Your task to perform on an android device: open app "Microsoft Outlook" (install if not already installed) Image 0: 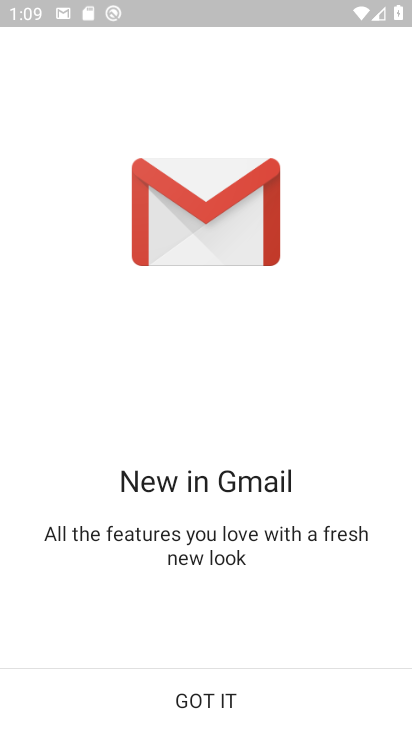
Step 0: press home button
Your task to perform on an android device: open app "Microsoft Outlook" (install if not already installed) Image 1: 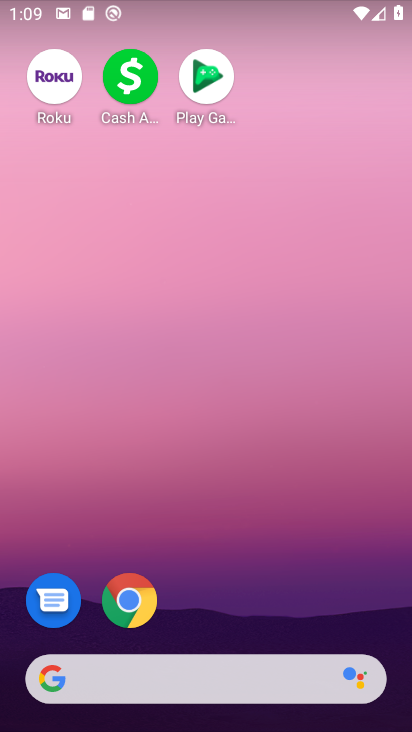
Step 1: drag from (262, 619) to (221, 192)
Your task to perform on an android device: open app "Microsoft Outlook" (install if not already installed) Image 2: 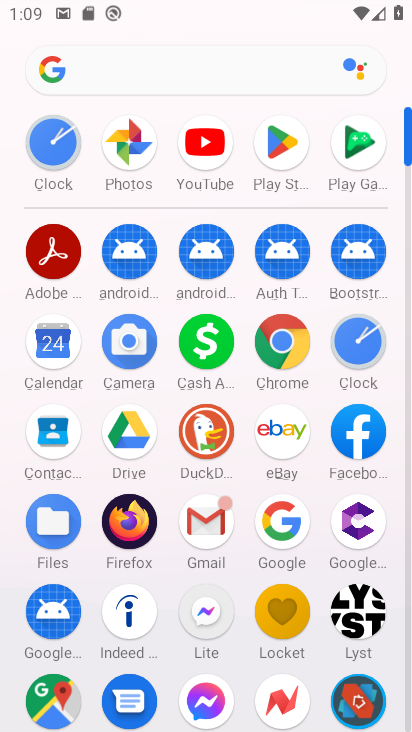
Step 2: click (410, 593)
Your task to perform on an android device: open app "Microsoft Outlook" (install if not already installed) Image 3: 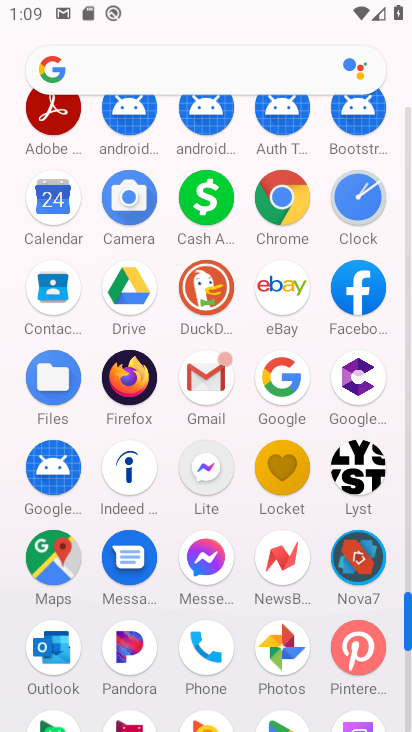
Step 3: click (274, 720)
Your task to perform on an android device: open app "Microsoft Outlook" (install if not already installed) Image 4: 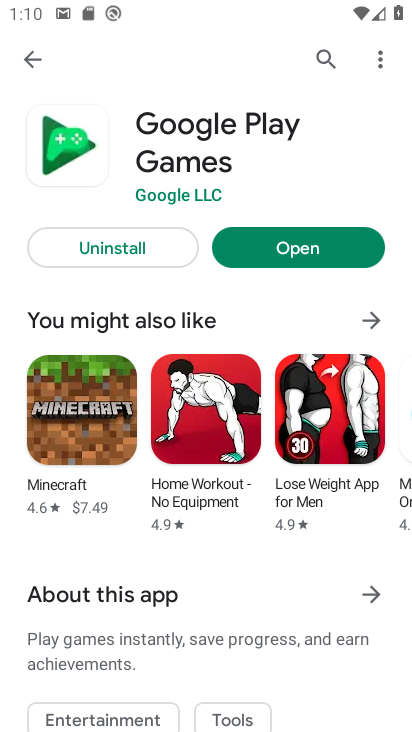
Step 4: click (317, 67)
Your task to perform on an android device: open app "Microsoft Outlook" (install if not already installed) Image 5: 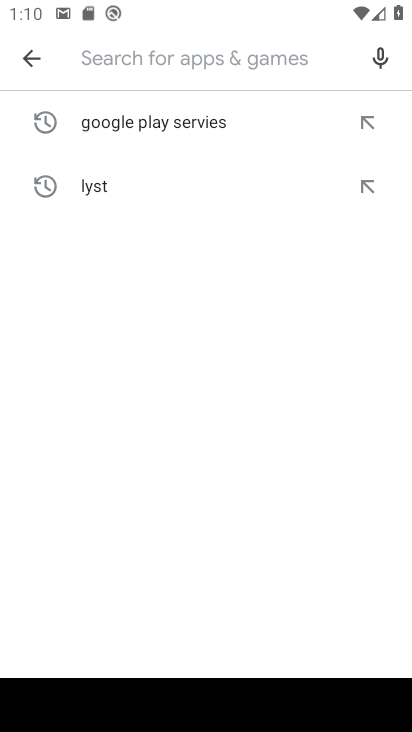
Step 5: type "mocrofot outlook"
Your task to perform on an android device: open app "Microsoft Outlook" (install if not already installed) Image 6: 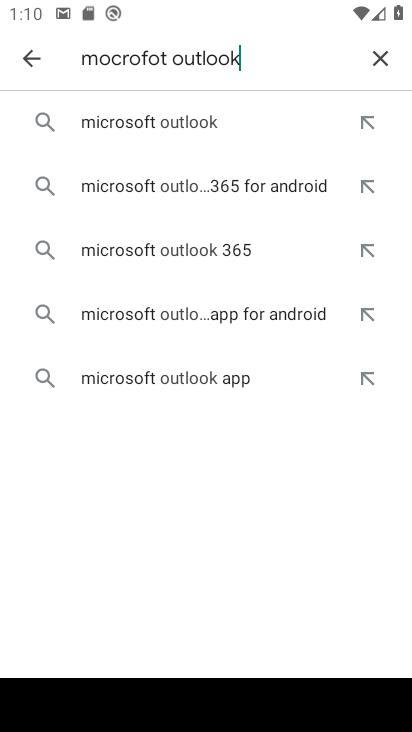
Step 6: click (230, 132)
Your task to perform on an android device: open app "Microsoft Outlook" (install if not already installed) Image 7: 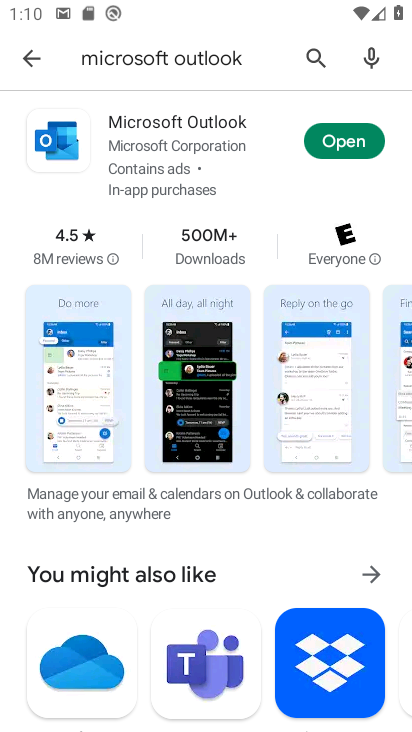
Step 7: click (348, 151)
Your task to perform on an android device: open app "Microsoft Outlook" (install if not already installed) Image 8: 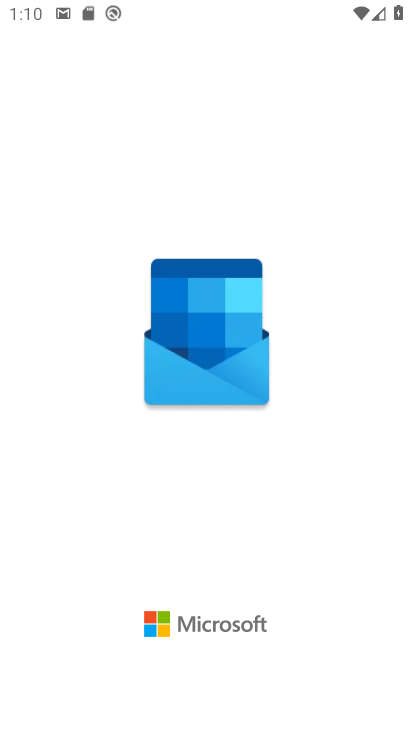
Step 8: task complete